Your task to perform on an android device: turn on bluetooth scan Image 0: 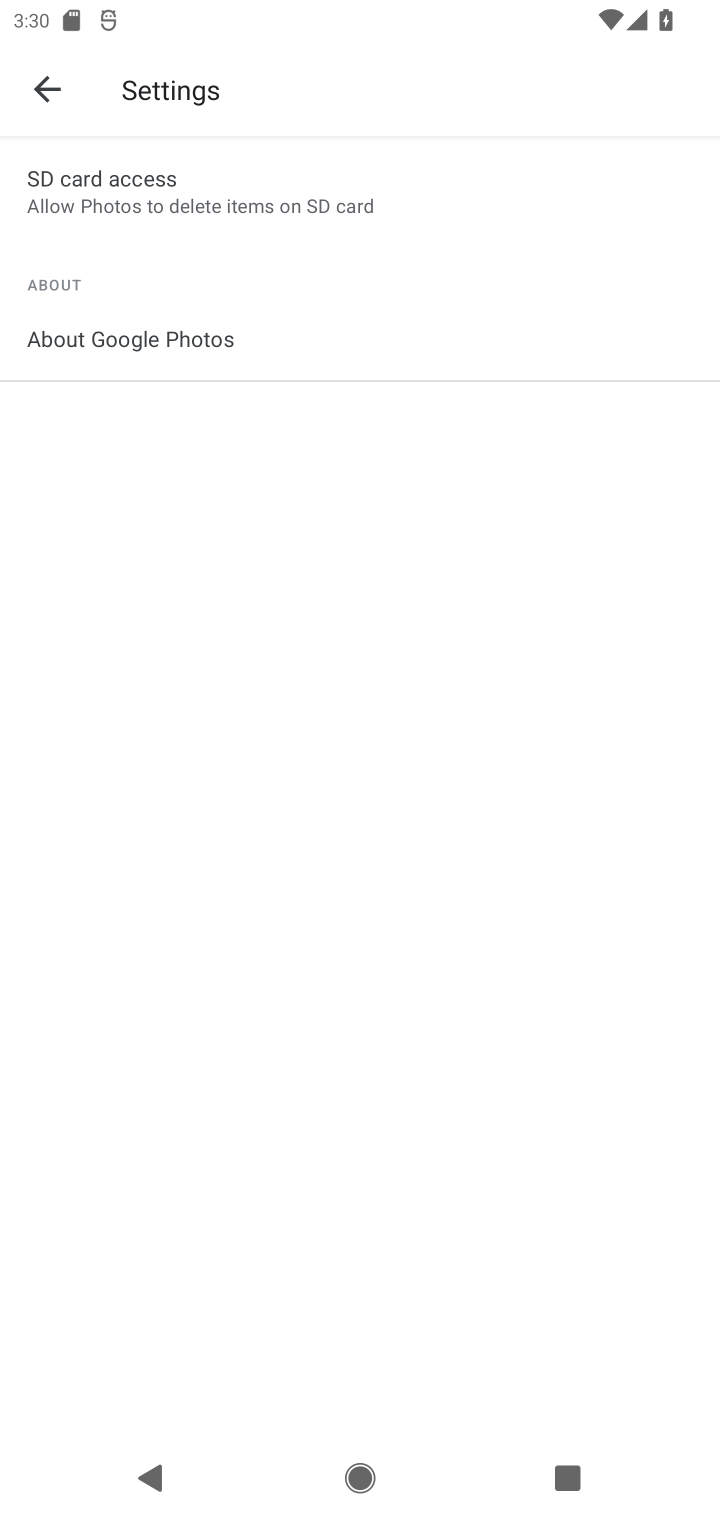
Step 0: click (42, 84)
Your task to perform on an android device: turn on bluetooth scan Image 1: 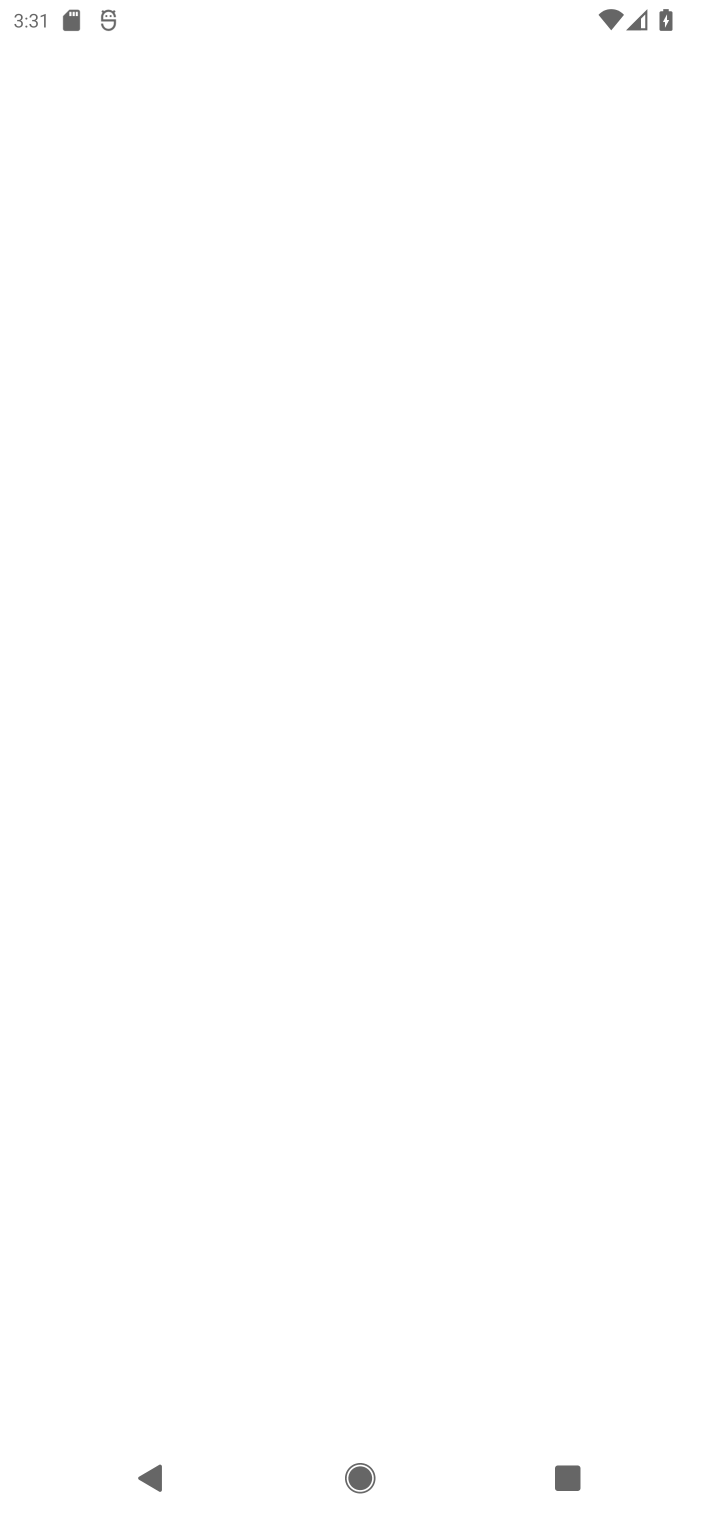
Step 1: press home button
Your task to perform on an android device: turn on bluetooth scan Image 2: 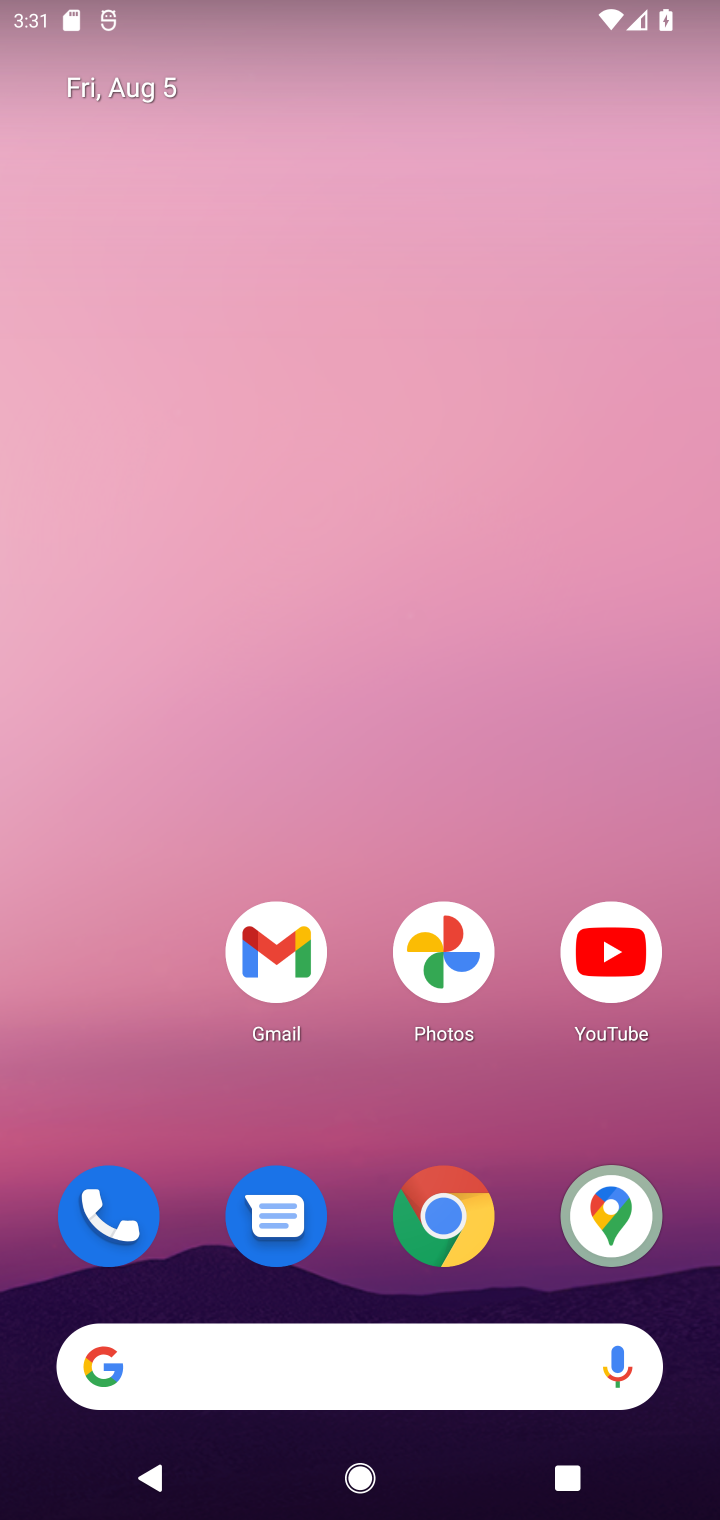
Step 2: drag from (142, 1091) to (0, 105)
Your task to perform on an android device: turn on bluetooth scan Image 3: 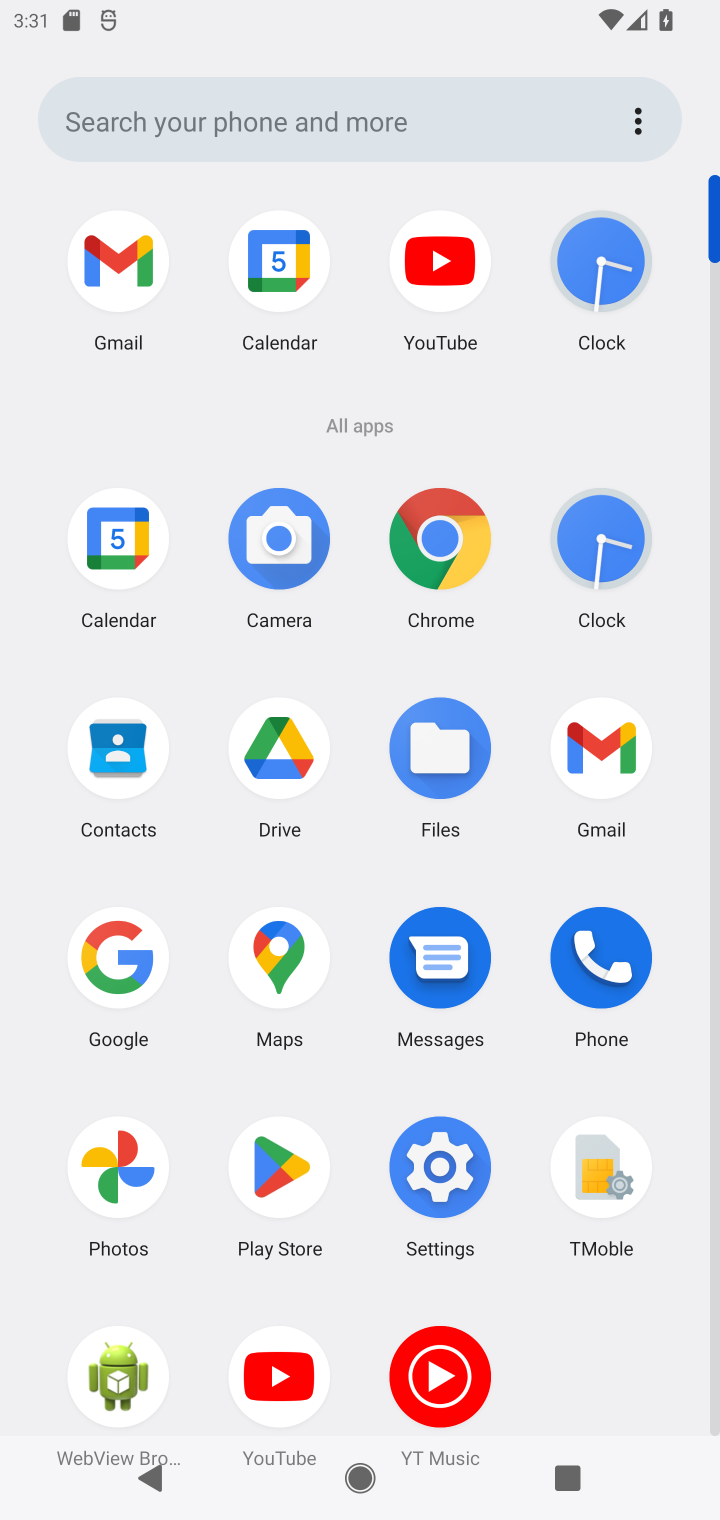
Step 3: click (436, 1183)
Your task to perform on an android device: turn on bluetooth scan Image 4: 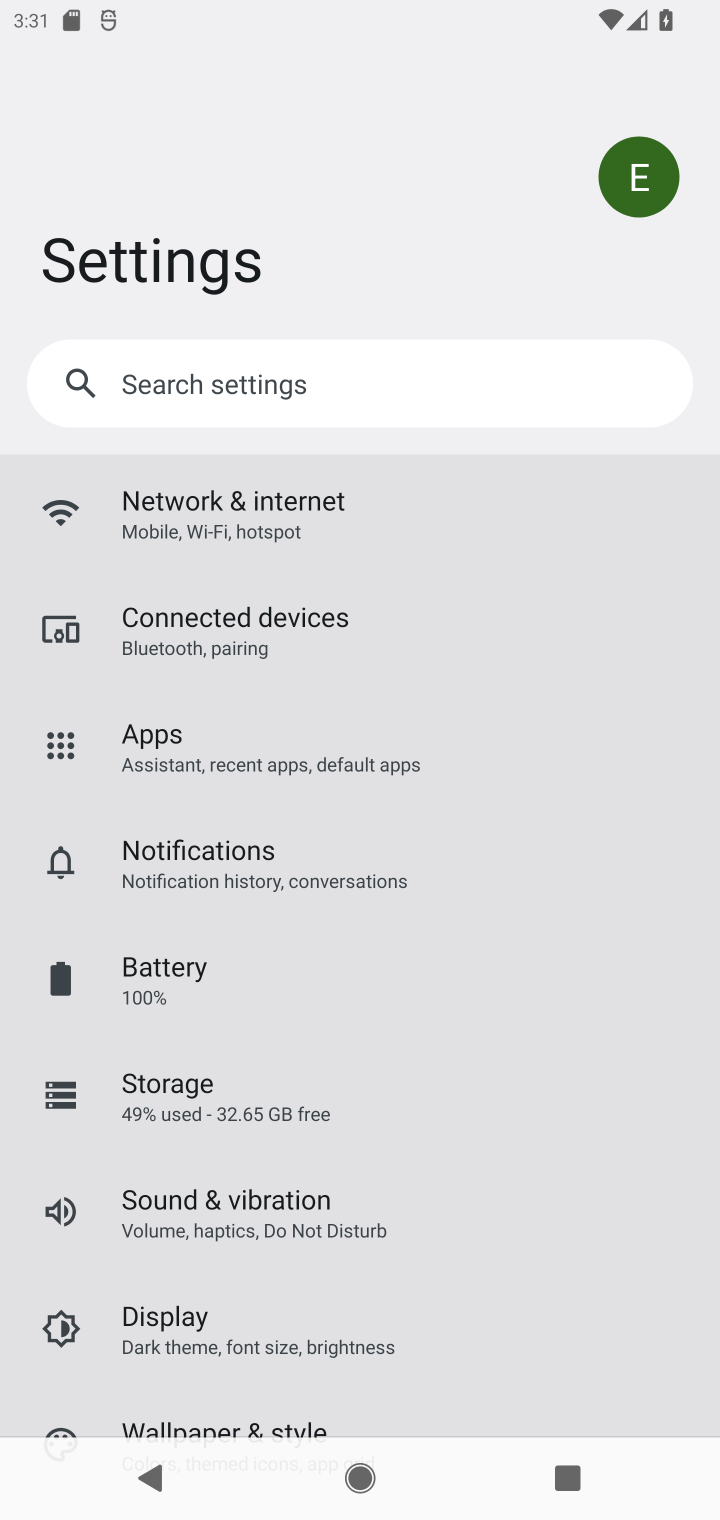
Step 4: click (246, 629)
Your task to perform on an android device: turn on bluetooth scan Image 5: 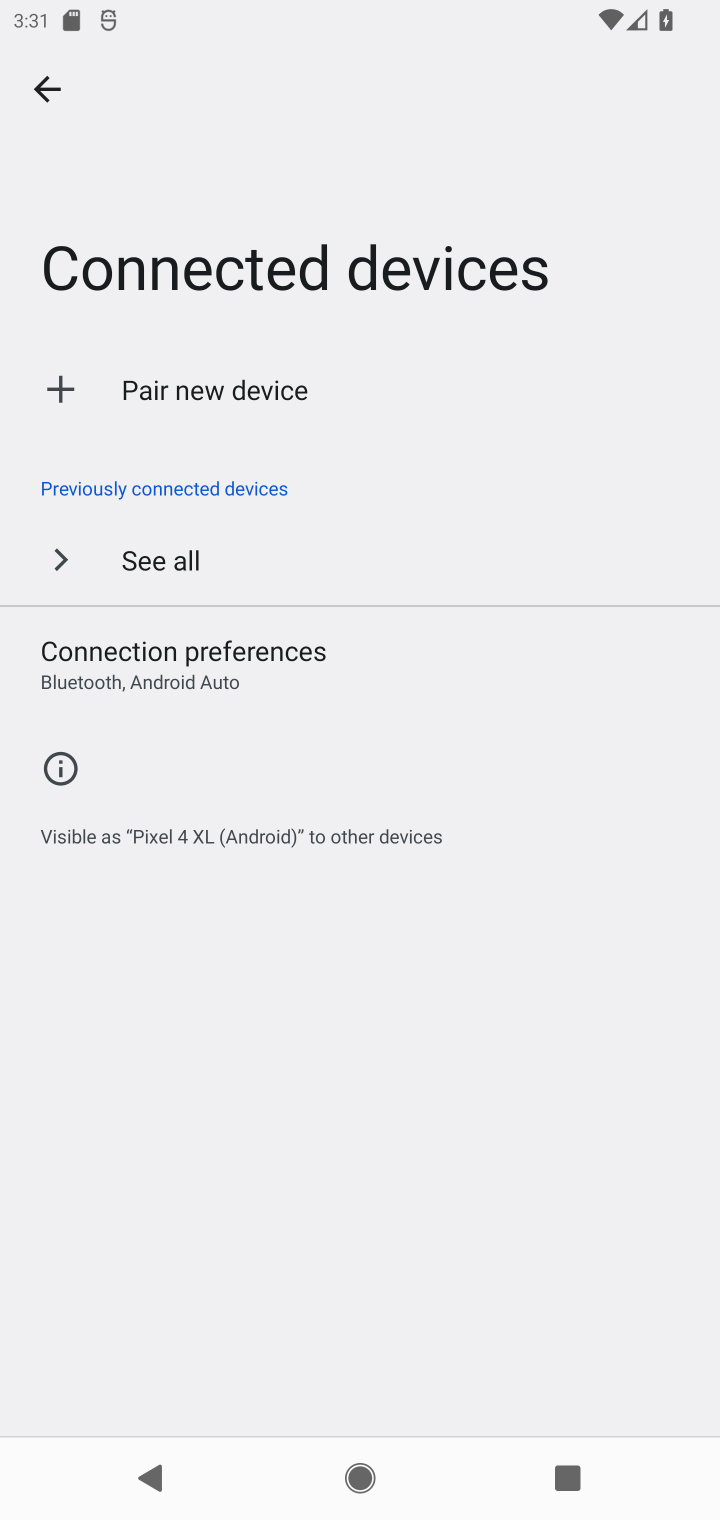
Step 5: click (184, 664)
Your task to perform on an android device: turn on bluetooth scan Image 6: 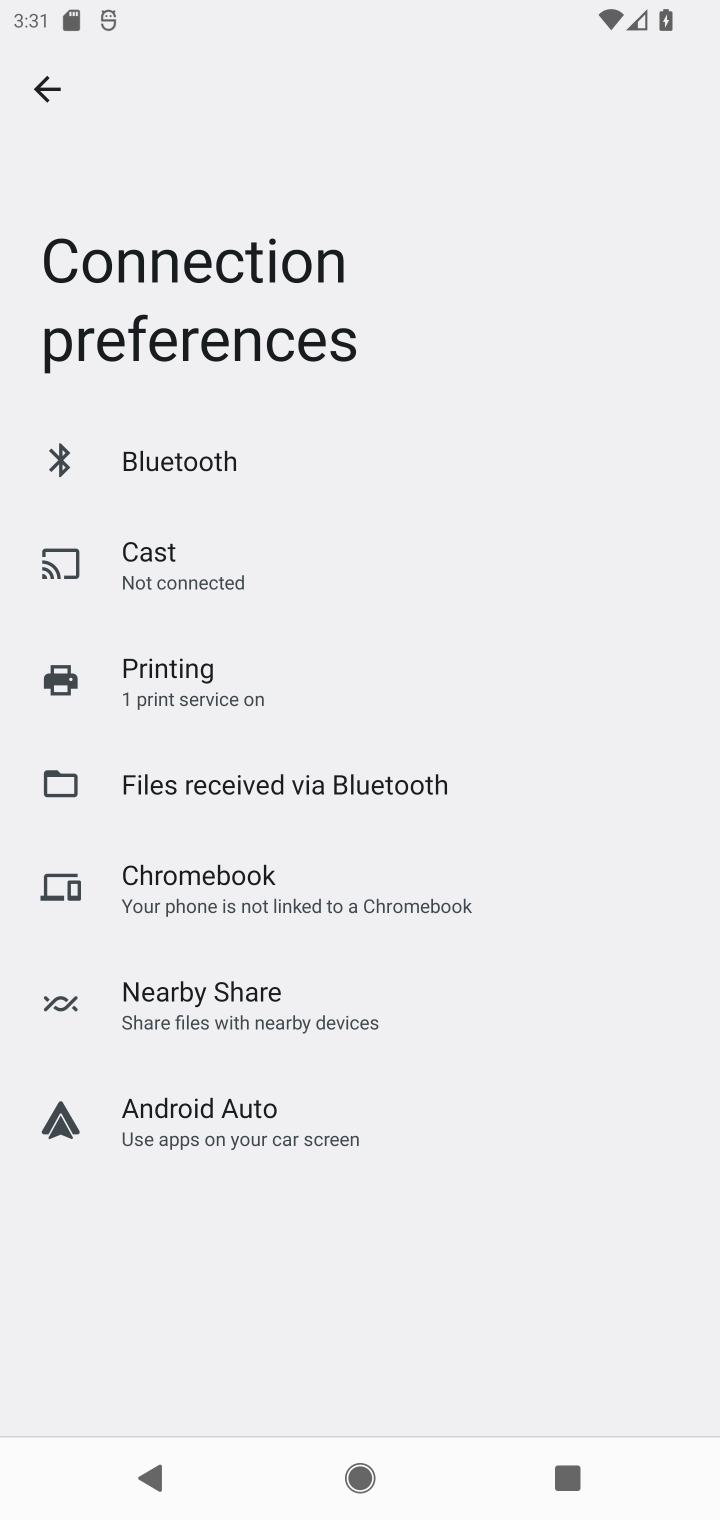
Step 6: click (181, 450)
Your task to perform on an android device: turn on bluetooth scan Image 7: 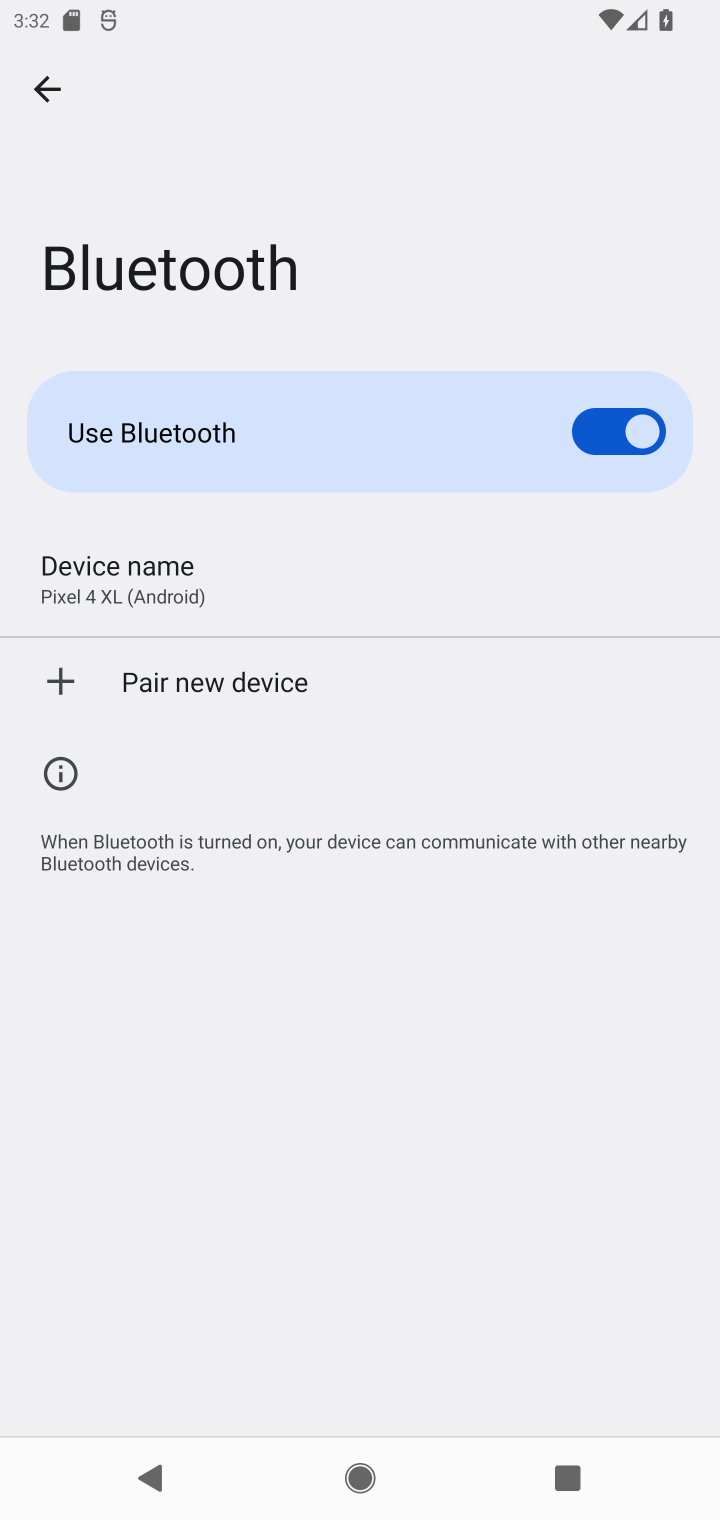
Step 7: click (205, 677)
Your task to perform on an android device: turn on bluetooth scan Image 8: 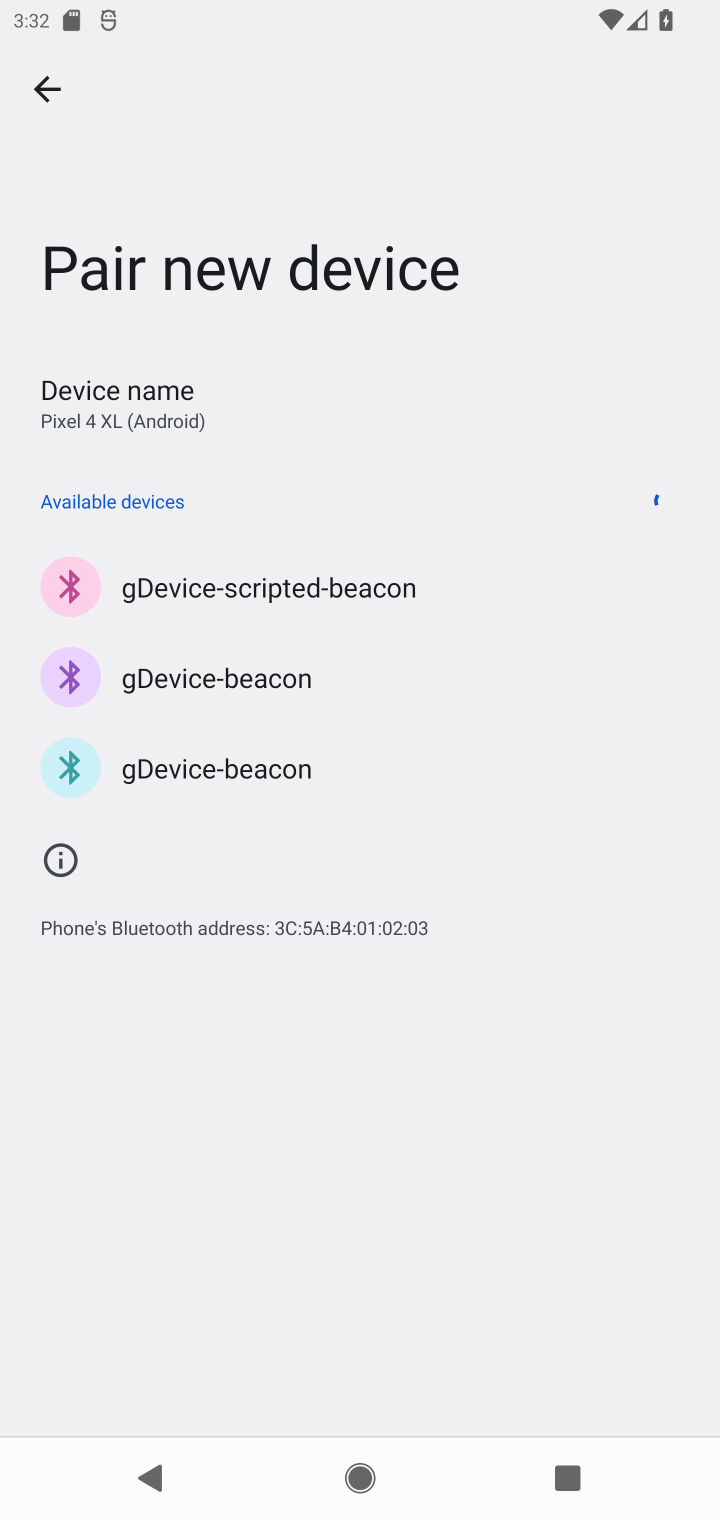
Step 8: click (52, 88)
Your task to perform on an android device: turn on bluetooth scan Image 9: 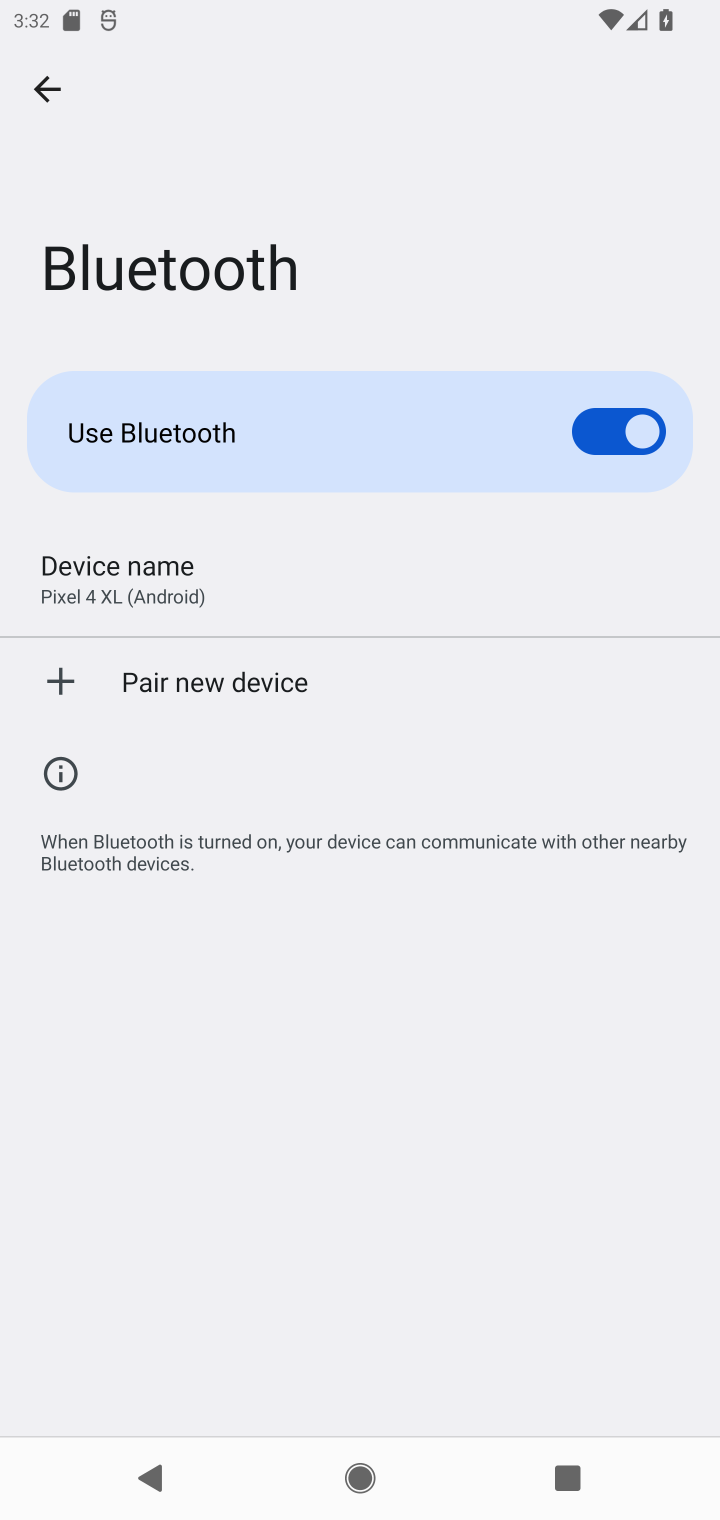
Step 9: click (52, 88)
Your task to perform on an android device: turn on bluetooth scan Image 10: 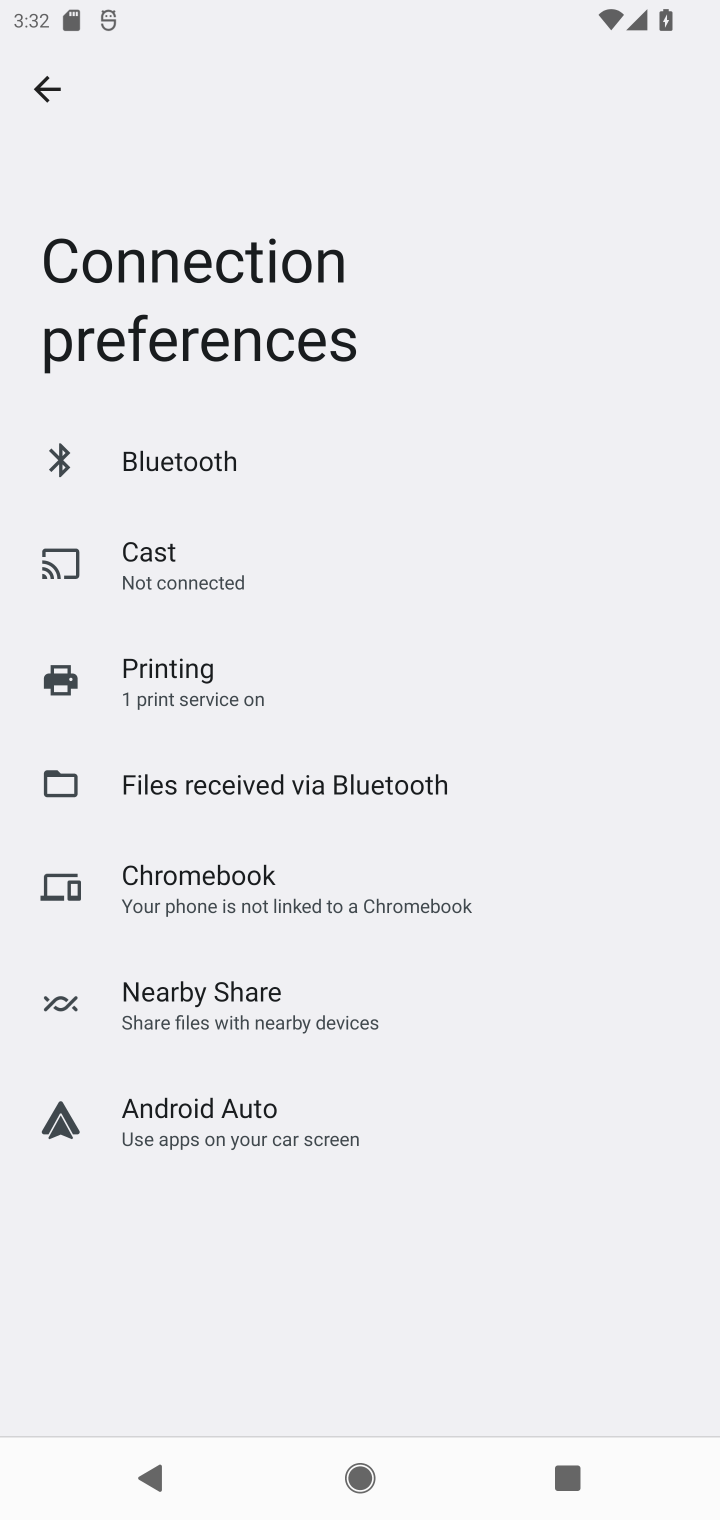
Step 10: click (40, 89)
Your task to perform on an android device: turn on bluetooth scan Image 11: 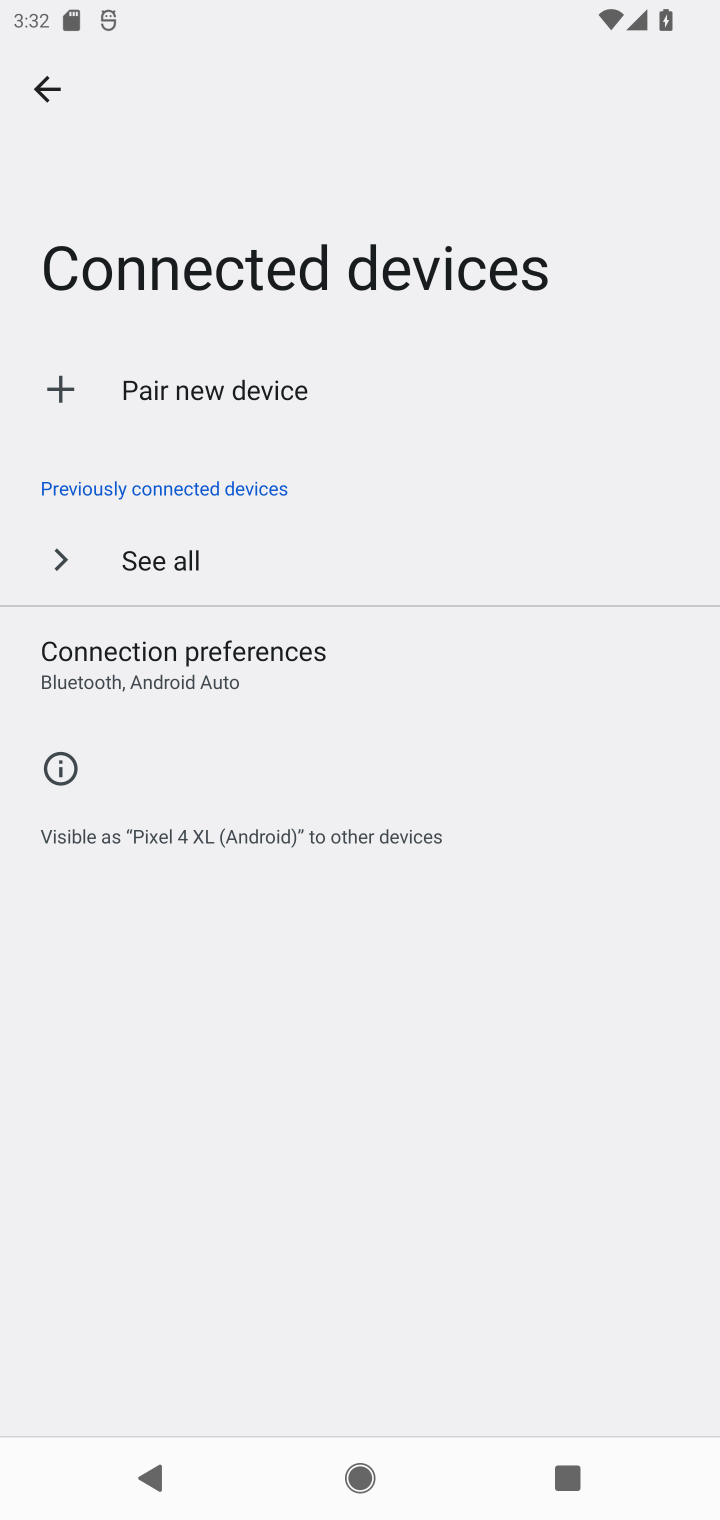
Step 11: click (49, 89)
Your task to perform on an android device: turn on bluetooth scan Image 12: 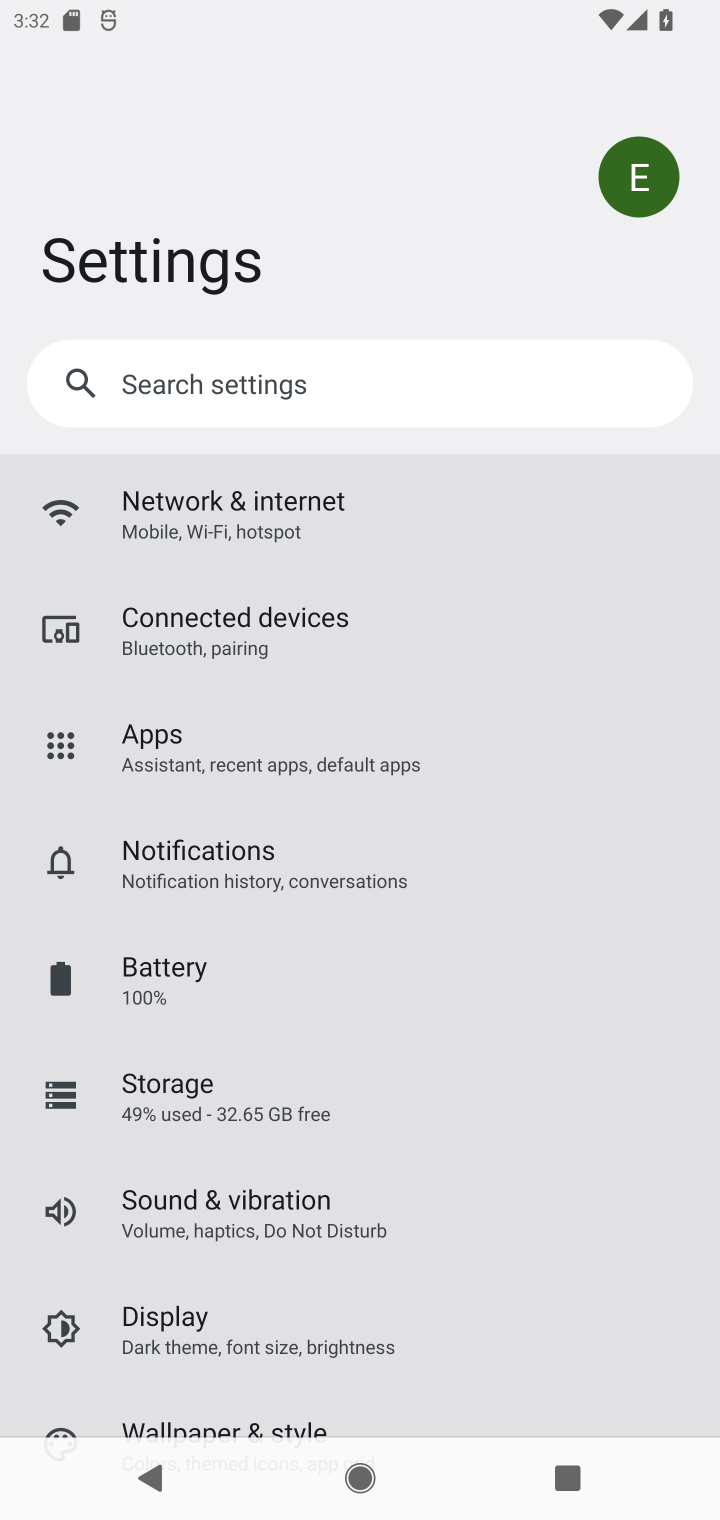
Step 12: task complete